Your task to perform on an android device: Go to network settings Image 0: 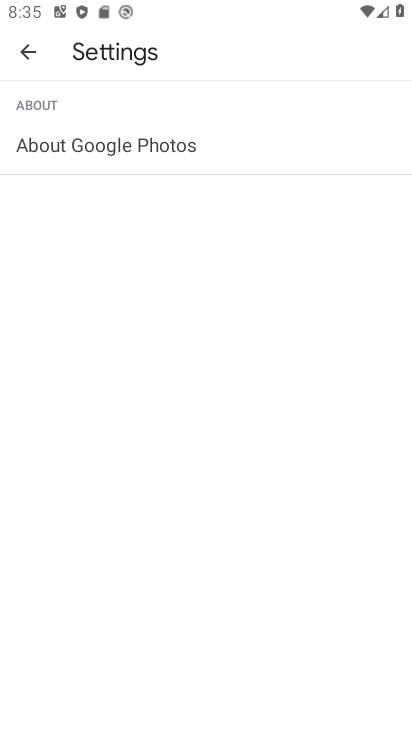
Step 0: press home button
Your task to perform on an android device: Go to network settings Image 1: 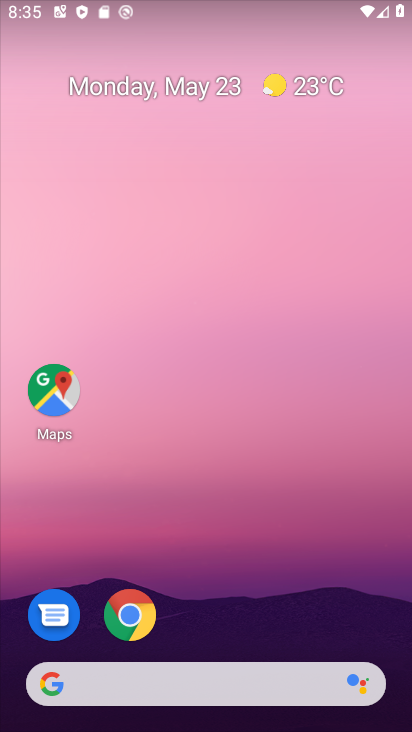
Step 1: drag from (232, 550) to (193, 78)
Your task to perform on an android device: Go to network settings Image 2: 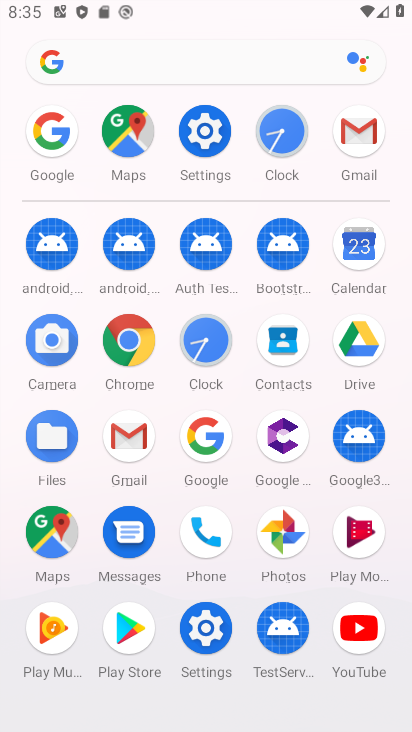
Step 2: click (207, 627)
Your task to perform on an android device: Go to network settings Image 3: 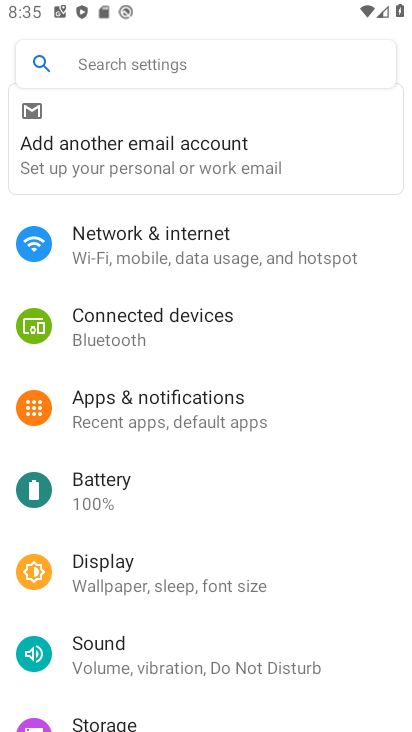
Step 3: click (176, 262)
Your task to perform on an android device: Go to network settings Image 4: 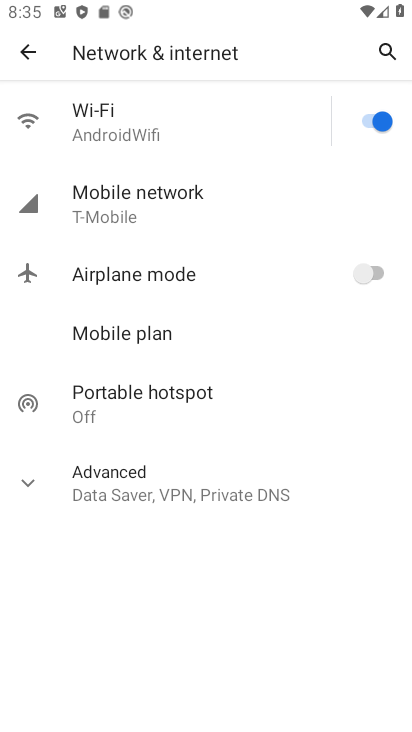
Step 4: click (123, 186)
Your task to perform on an android device: Go to network settings Image 5: 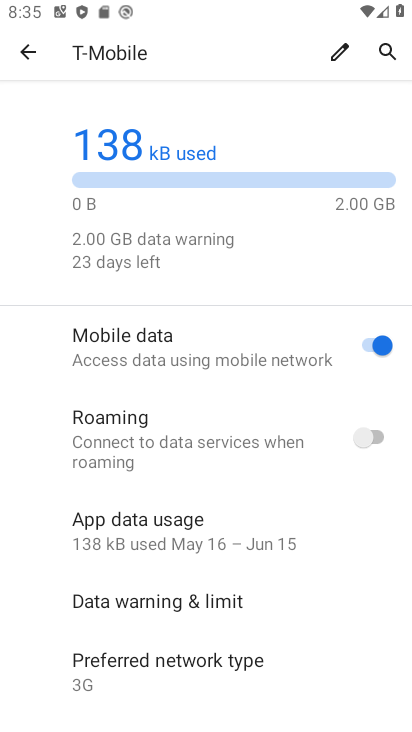
Step 5: task complete